Your task to perform on an android device: Open Amazon Image 0: 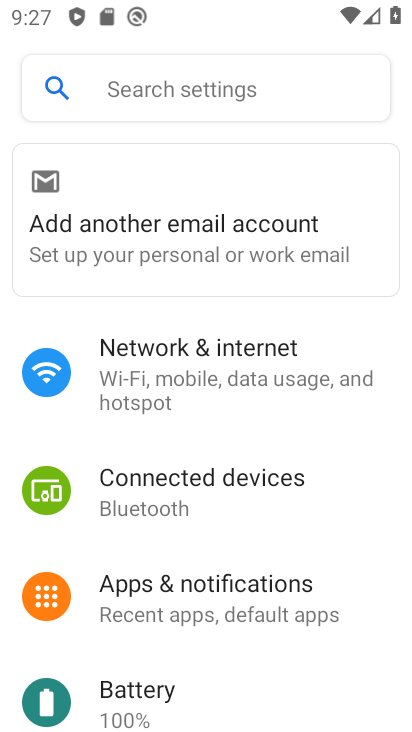
Step 0: press home button
Your task to perform on an android device: Open Amazon Image 1: 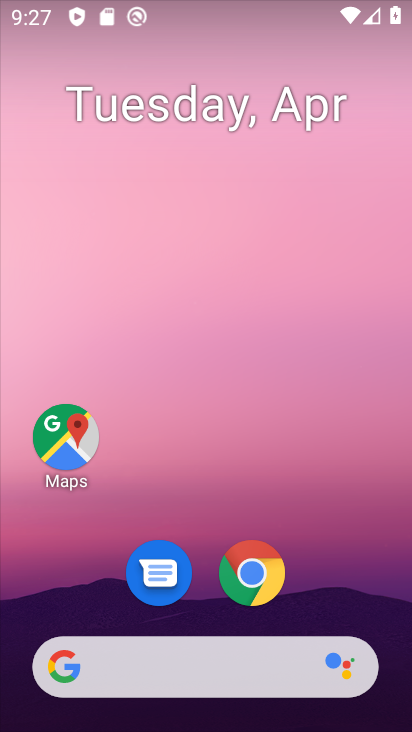
Step 1: click (252, 575)
Your task to perform on an android device: Open Amazon Image 2: 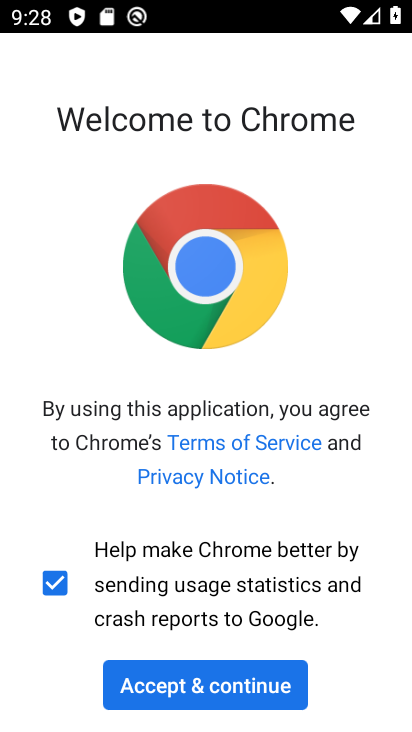
Step 2: click (208, 695)
Your task to perform on an android device: Open Amazon Image 3: 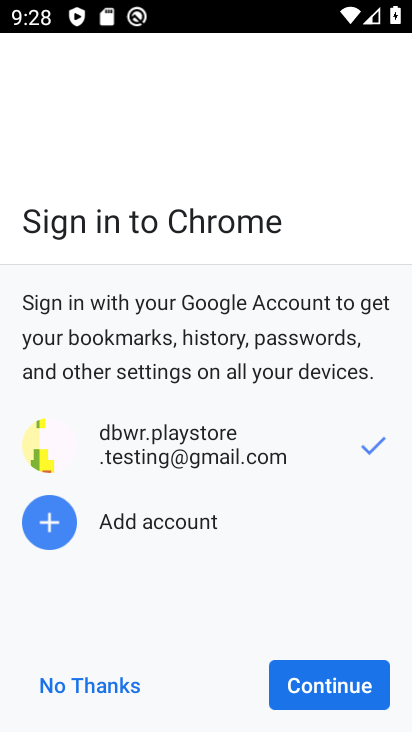
Step 3: click (81, 686)
Your task to perform on an android device: Open Amazon Image 4: 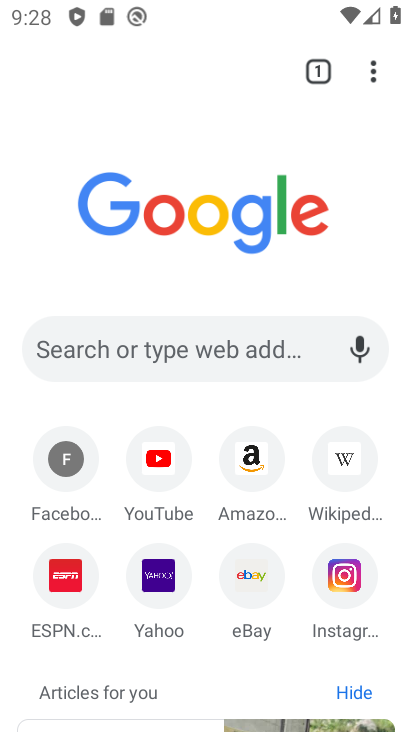
Step 4: click (249, 459)
Your task to perform on an android device: Open Amazon Image 5: 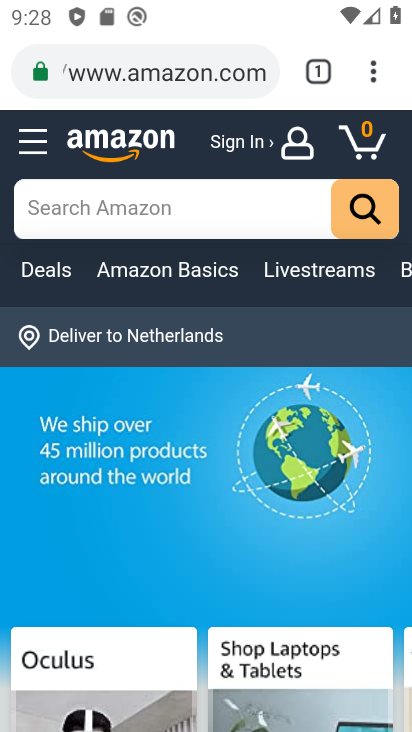
Step 5: task complete